Your task to perform on an android device: Go to calendar. Show me events next week Image 0: 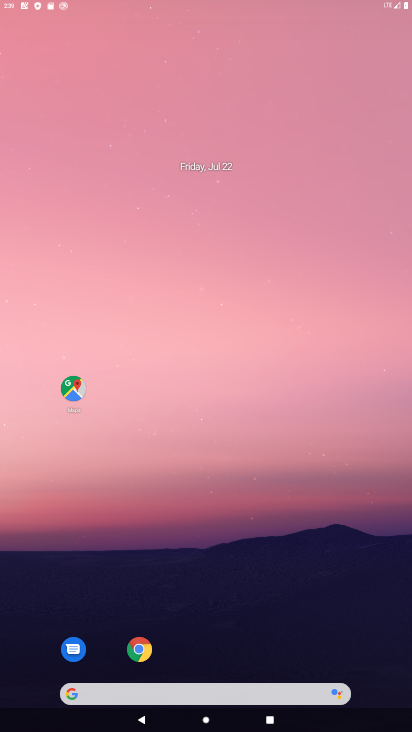
Step 0: drag from (204, 650) to (264, 79)
Your task to perform on an android device: Go to calendar. Show me events next week Image 1: 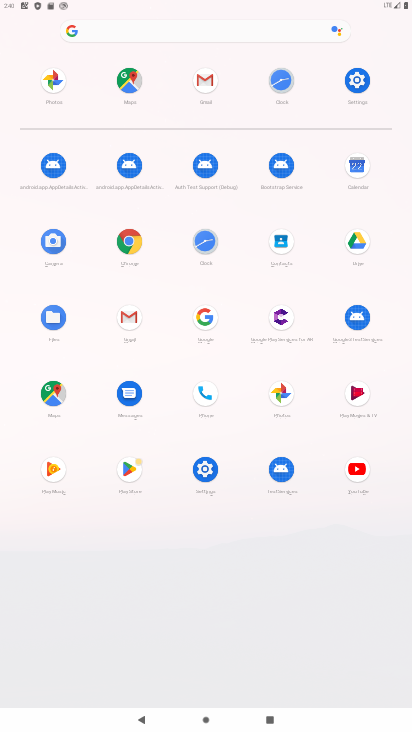
Step 1: drag from (160, 468) to (195, 136)
Your task to perform on an android device: Go to calendar. Show me events next week Image 2: 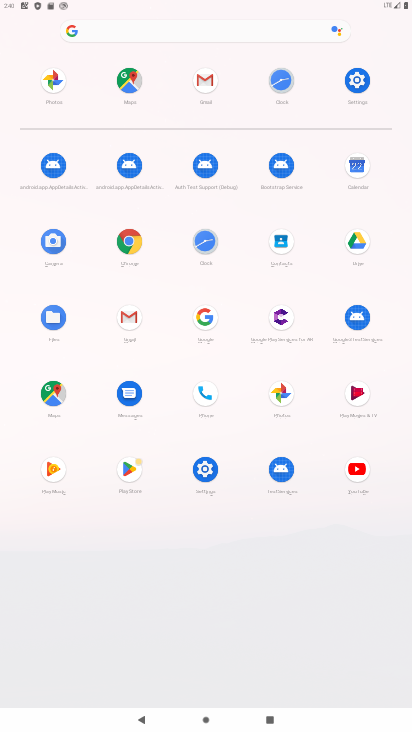
Step 2: drag from (218, 612) to (260, 282)
Your task to perform on an android device: Go to calendar. Show me events next week Image 3: 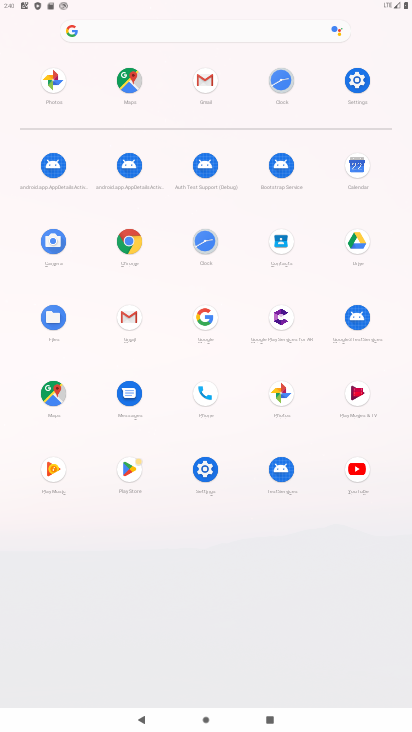
Step 3: click (204, 237)
Your task to perform on an android device: Go to calendar. Show me events next week Image 4: 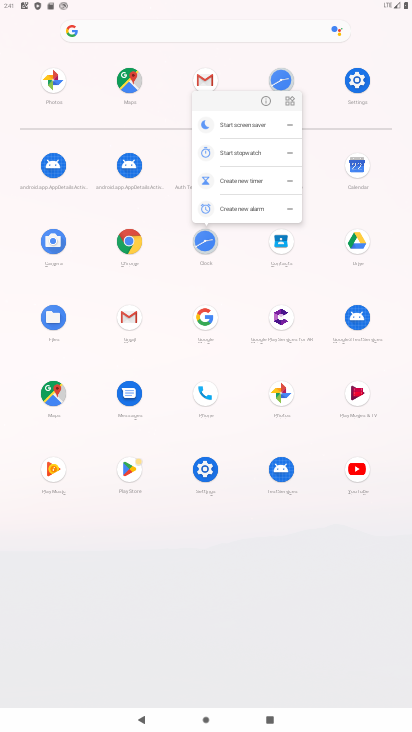
Step 4: click (351, 165)
Your task to perform on an android device: Go to calendar. Show me events next week Image 5: 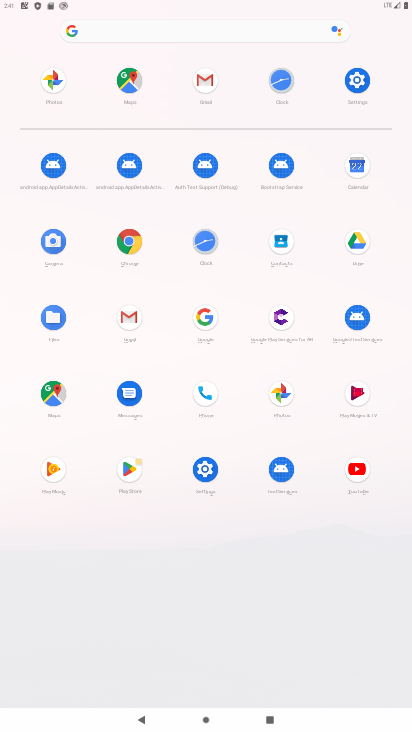
Step 5: click (351, 165)
Your task to perform on an android device: Go to calendar. Show me events next week Image 6: 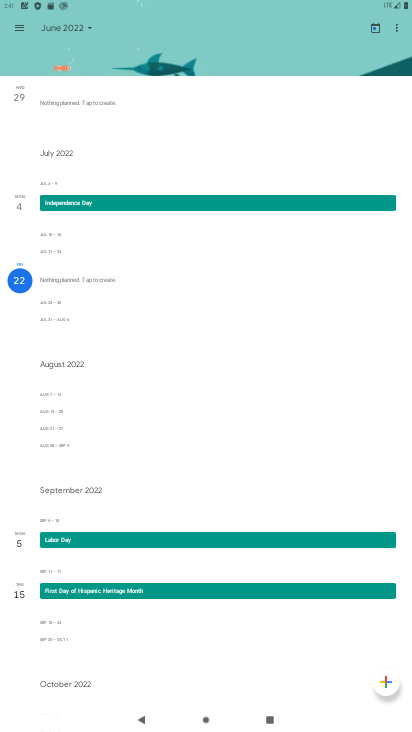
Step 6: click (66, 25)
Your task to perform on an android device: Go to calendar. Show me events next week Image 7: 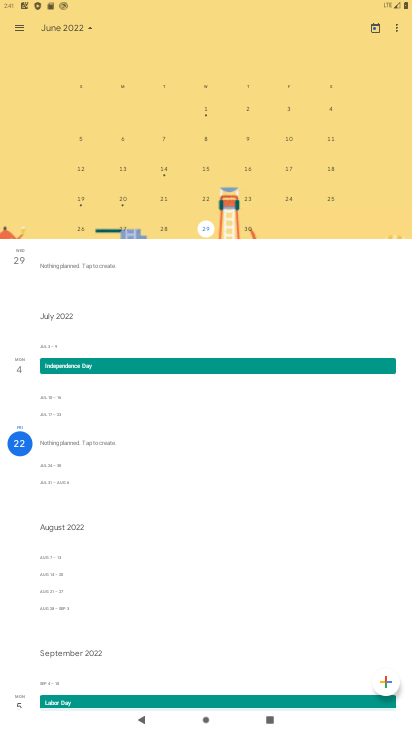
Step 7: drag from (136, 152) to (396, 167)
Your task to perform on an android device: Go to calendar. Show me events next week Image 8: 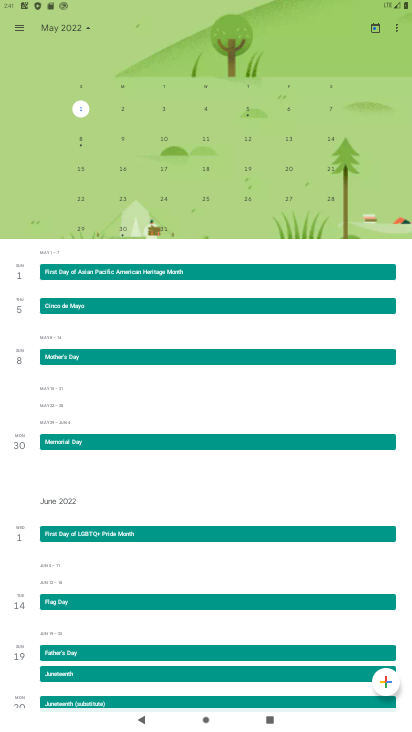
Step 8: drag from (97, 183) to (338, 147)
Your task to perform on an android device: Go to calendar. Show me events next week Image 9: 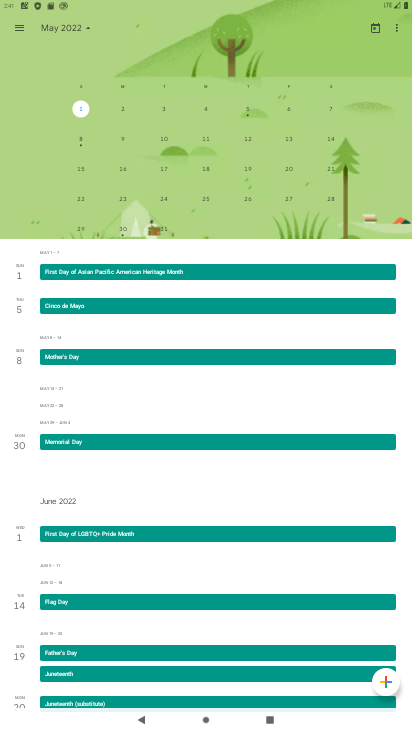
Step 9: drag from (85, 181) to (385, 623)
Your task to perform on an android device: Go to calendar. Show me events next week Image 10: 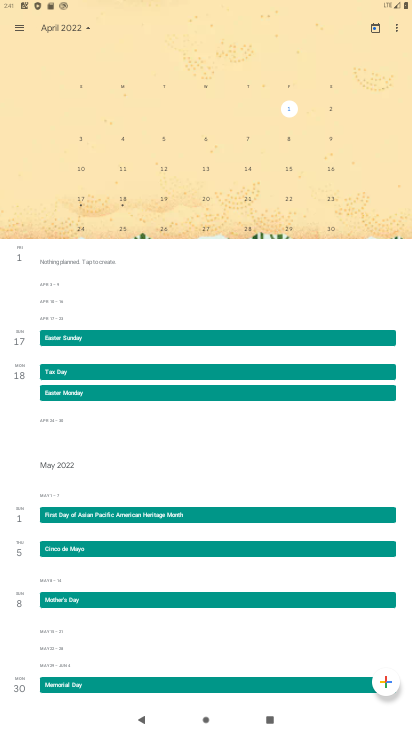
Step 10: drag from (180, 617) to (234, 244)
Your task to perform on an android device: Go to calendar. Show me events next week Image 11: 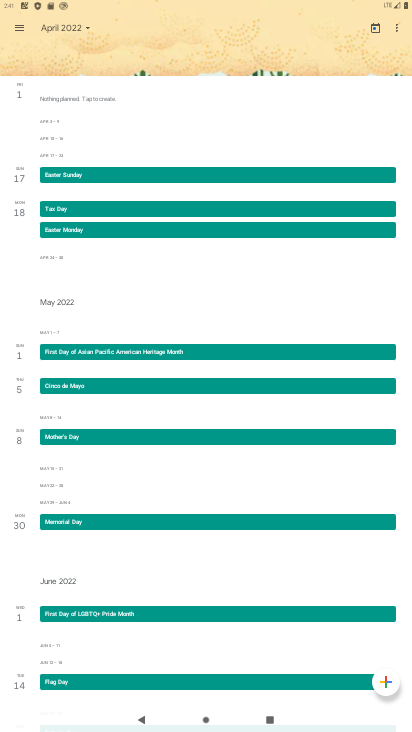
Step 11: click (64, 30)
Your task to perform on an android device: Go to calendar. Show me events next week Image 12: 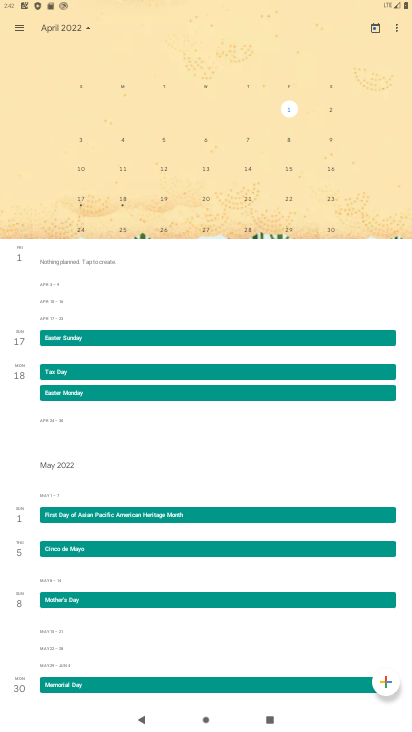
Step 12: drag from (319, 172) to (41, 127)
Your task to perform on an android device: Go to calendar. Show me events next week Image 13: 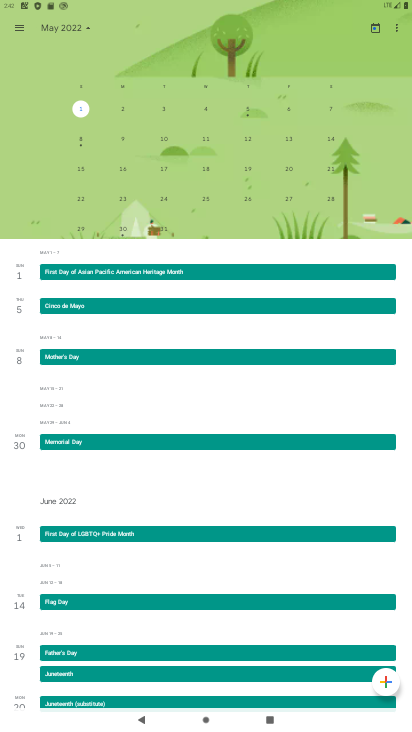
Step 13: click (375, 27)
Your task to perform on an android device: Go to calendar. Show me events next week Image 14: 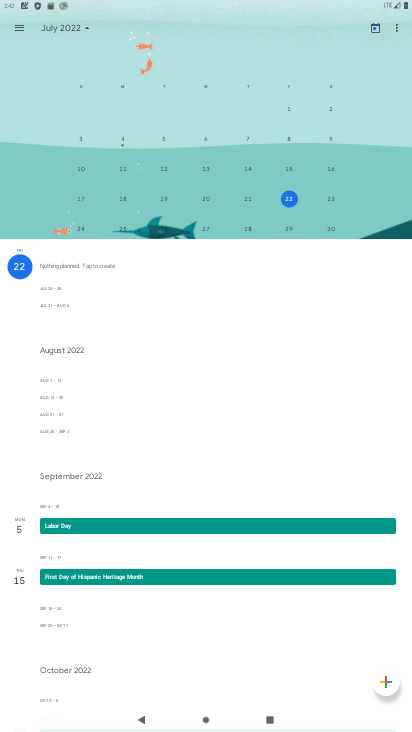
Step 14: drag from (282, 562) to (311, 377)
Your task to perform on an android device: Go to calendar. Show me events next week Image 15: 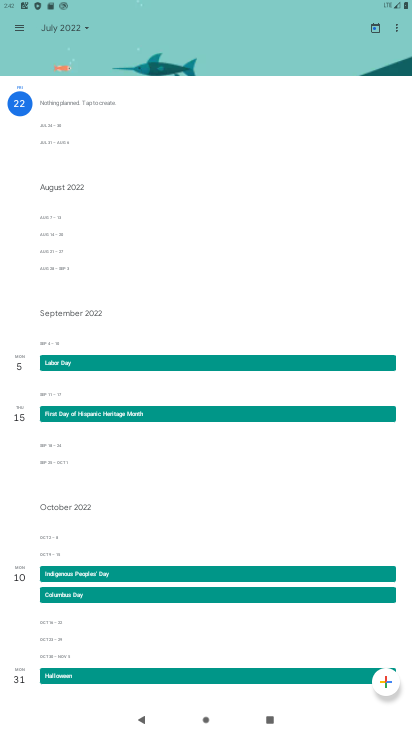
Step 15: drag from (242, 554) to (270, 320)
Your task to perform on an android device: Go to calendar. Show me events next week Image 16: 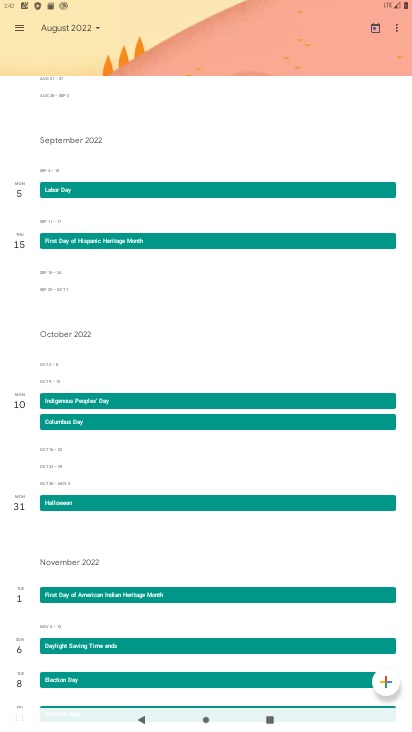
Step 16: drag from (216, 572) to (252, 242)
Your task to perform on an android device: Go to calendar. Show me events next week Image 17: 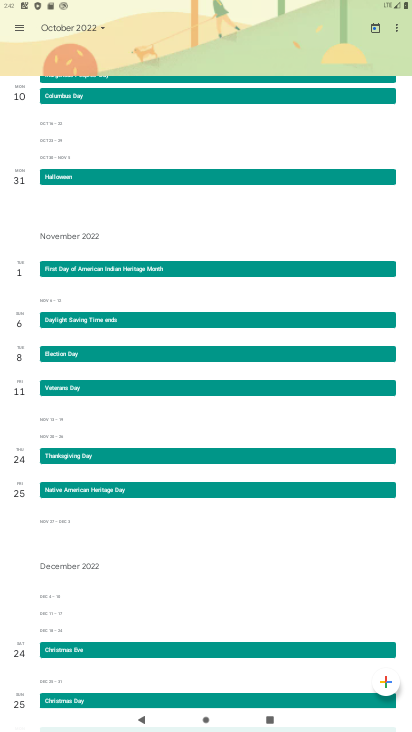
Step 17: drag from (188, 289) to (270, 715)
Your task to perform on an android device: Go to calendar. Show me events next week Image 18: 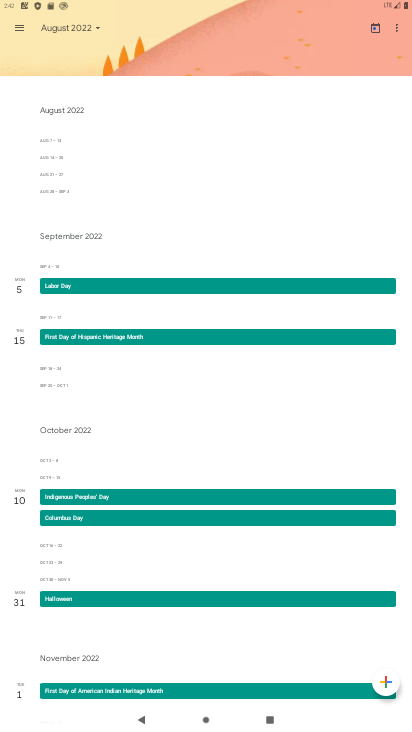
Step 18: click (68, 35)
Your task to perform on an android device: Go to calendar. Show me events next week Image 19: 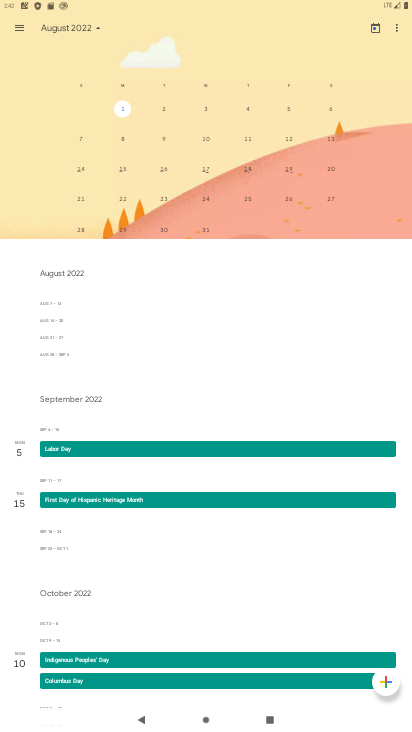
Step 19: click (78, 29)
Your task to perform on an android device: Go to calendar. Show me events next week Image 20: 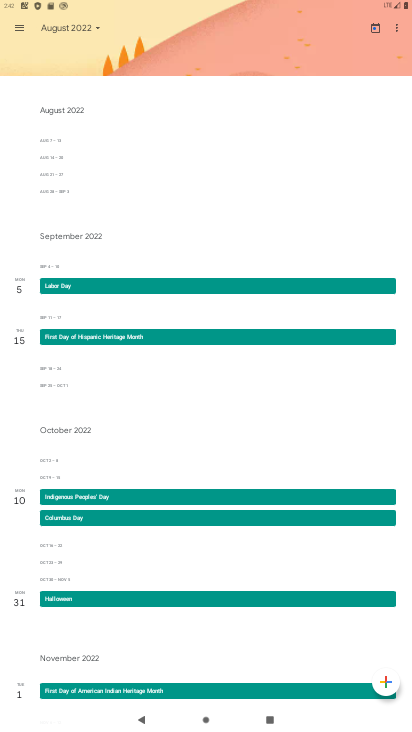
Step 20: click (372, 29)
Your task to perform on an android device: Go to calendar. Show me events next week Image 21: 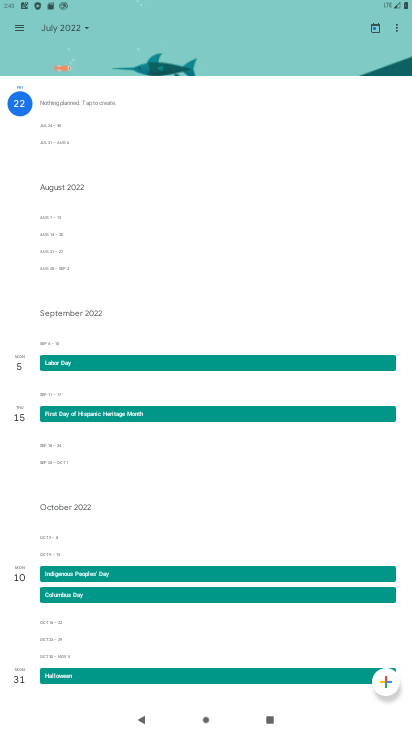
Step 21: click (378, 33)
Your task to perform on an android device: Go to calendar. Show me events next week Image 22: 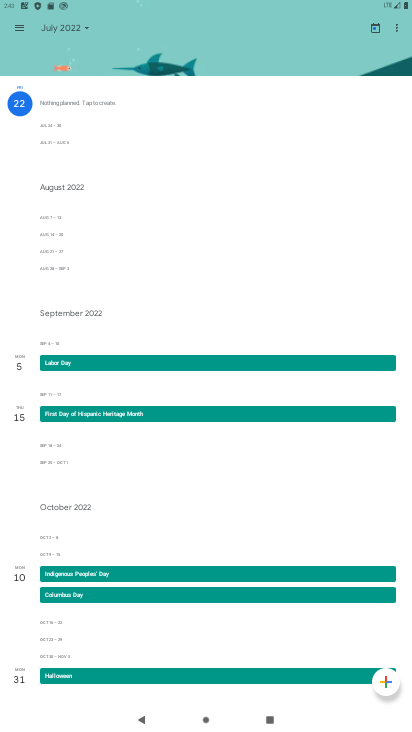
Step 22: drag from (317, 440) to (347, 229)
Your task to perform on an android device: Go to calendar. Show me events next week Image 23: 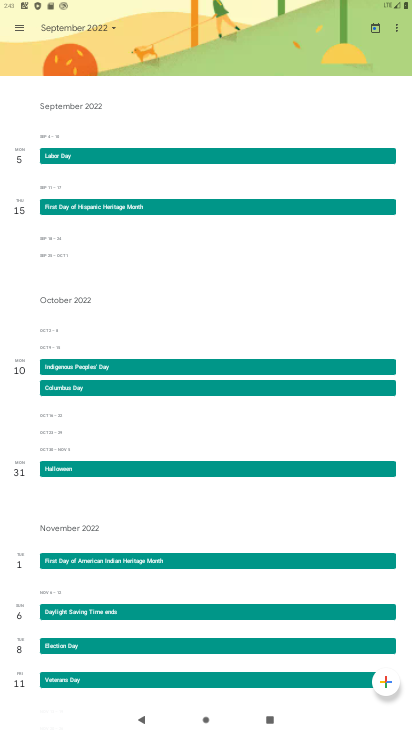
Step 23: click (71, 29)
Your task to perform on an android device: Go to calendar. Show me events next week Image 24: 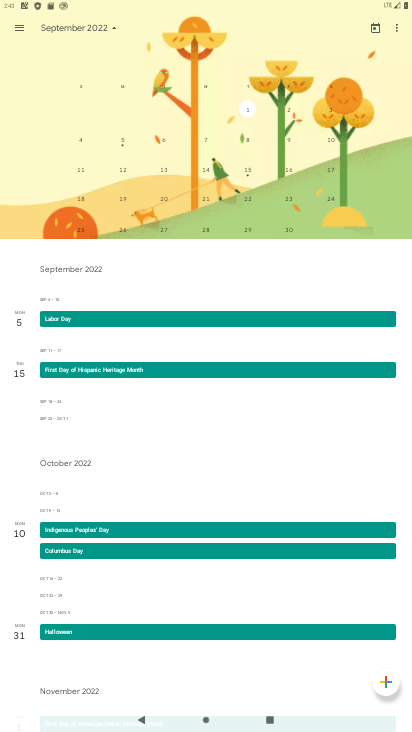
Step 24: click (372, 27)
Your task to perform on an android device: Go to calendar. Show me events next week Image 25: 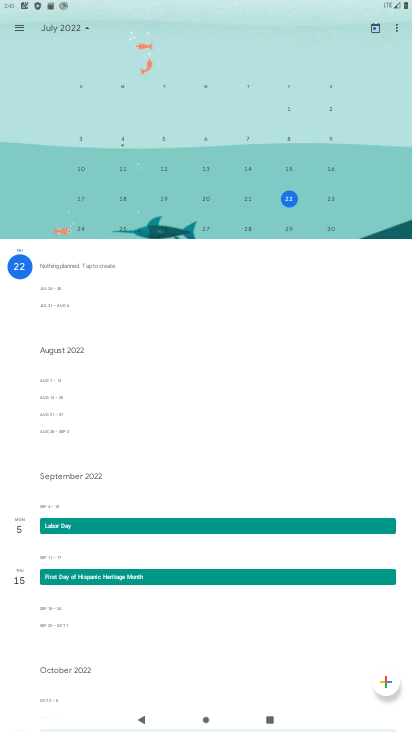
Step 25: drag from (229, 581) to (285, 146)
Your task to perform on an android device: Go to calendar. Show me events next week Image 26: 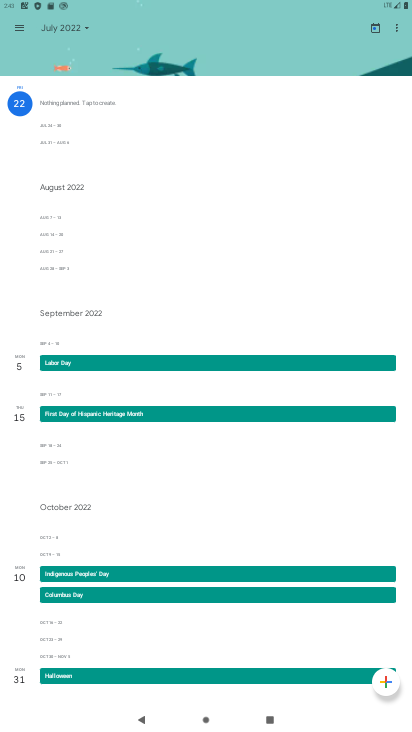
Step 26: click (369, 26)
Your task to perform on an android device: Go to calendar. Show me events next week Image 27: 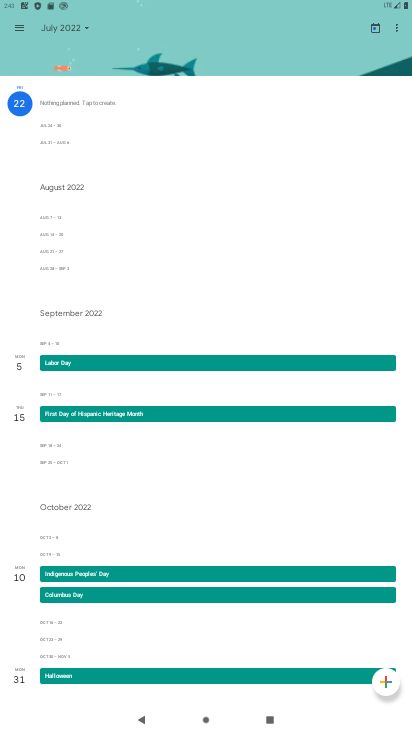
Step 27: drag from (264, 506) to (268, 339)
Your task to perform on an android device: Go to calendar. Show me events next week Image 28: 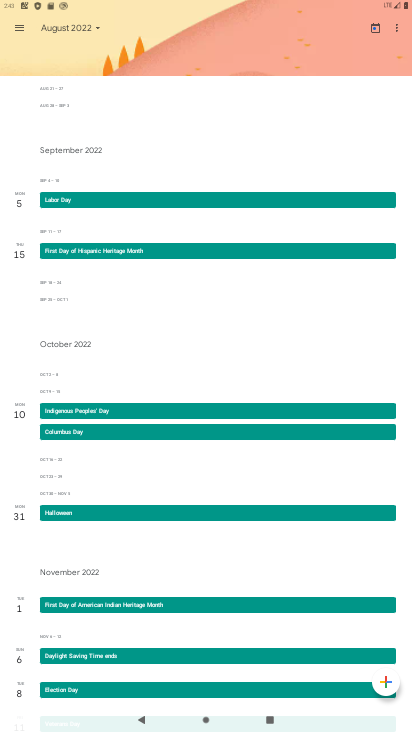
Step 28: click (65, 32)
Your task to perform on an android device: Go to calendar. Show me events next week Image 29: 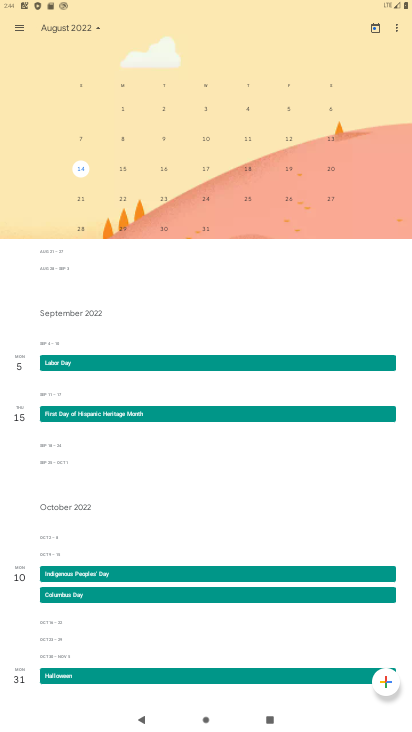
Step 29: task complete